Your task to perform on an android device: Search for Mexican restaurants on Maps Image 0: 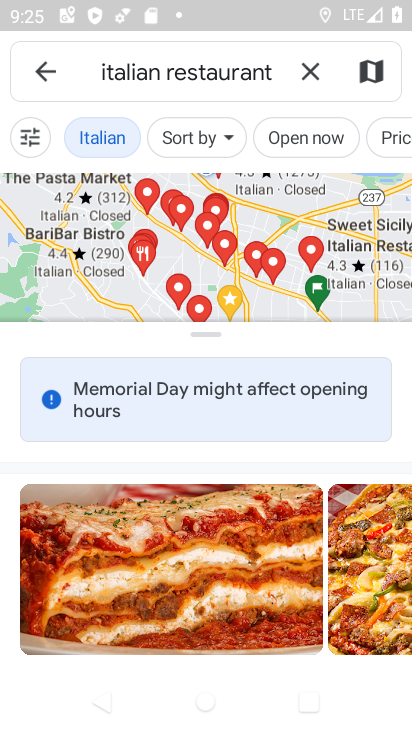
Step 0: click (308, 69)
Your task to perform on an android device: Search for Mexican restaurants on Maps Image 1: 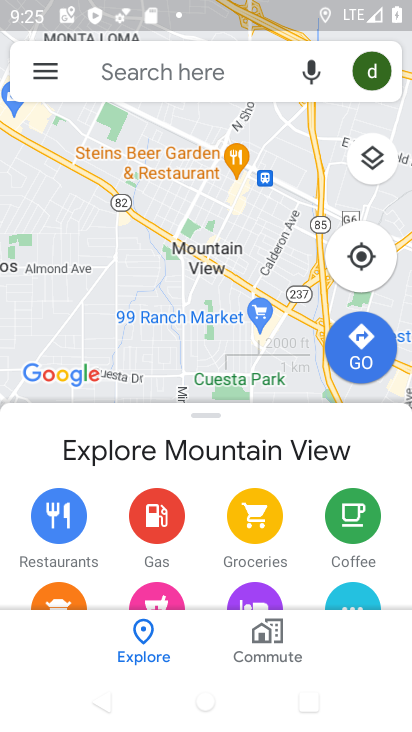
Step 1: click (152, 65)
Your task to perform on an android device: Search for Mexican restaurants on Maps Image 2: 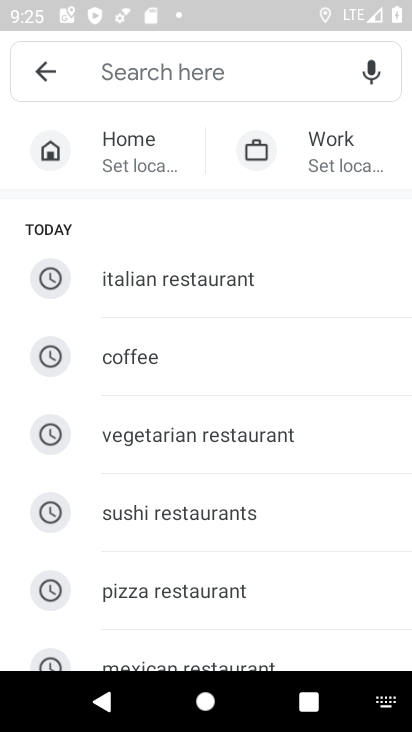
Step 2: drag from (230, 460) to (239, 343)
Your task to perform on an android device: Search for Mexican restaurants on Maps Image 3: 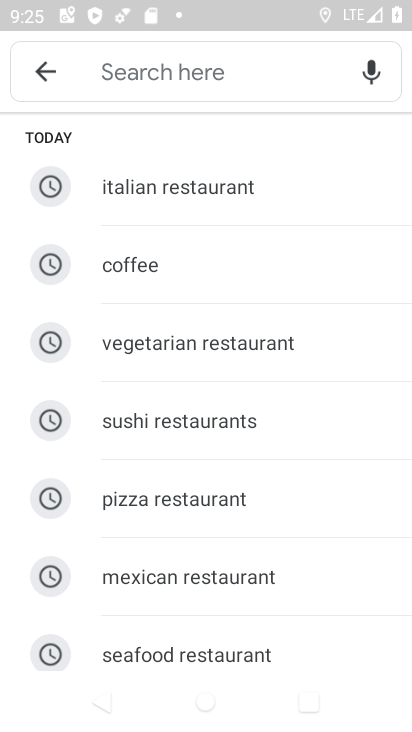
Step 3: click (228, 566)
Your task to perform on an android device: Search for Mexican restaurants on Maps Image 4: 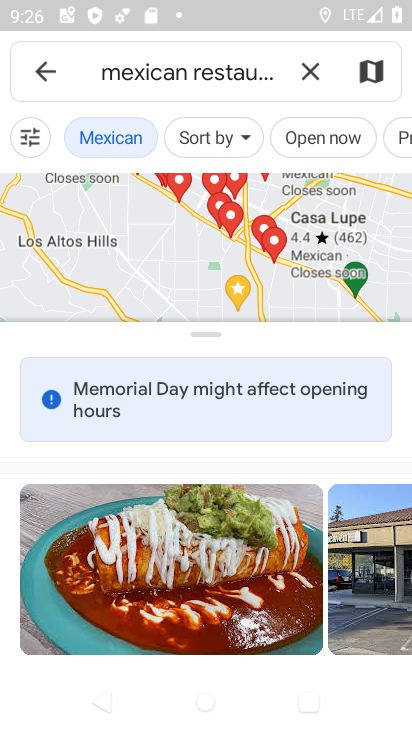
Step 4: task complete